Your task to perform on an android device: open chrome and create a bookmark for the current page Image 0: 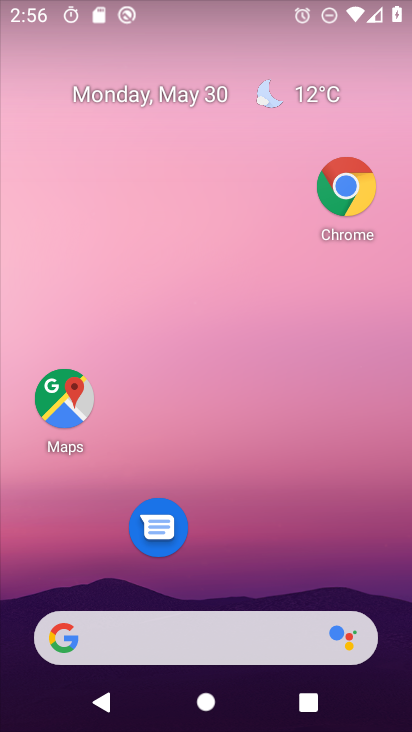
Step 0: drag from (209, 573) to (212, 88)
Your task to perform on an android device: open chrome and create a bookmark for the current page Image 1: 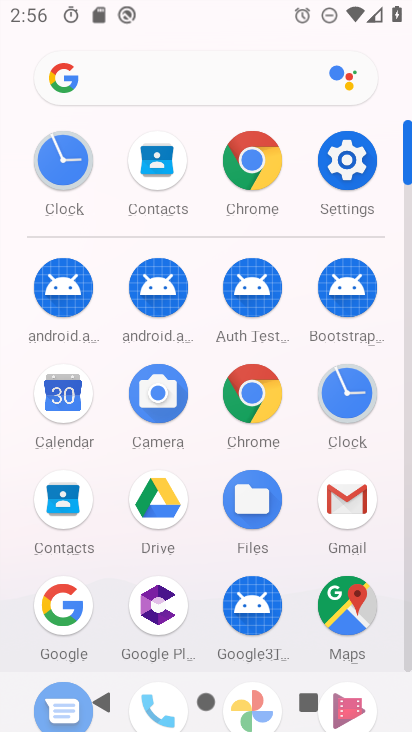
Step 1: click (254, 397)
Your task to perform on an android device: open chrome and create a bookmark for the current page Image 2: 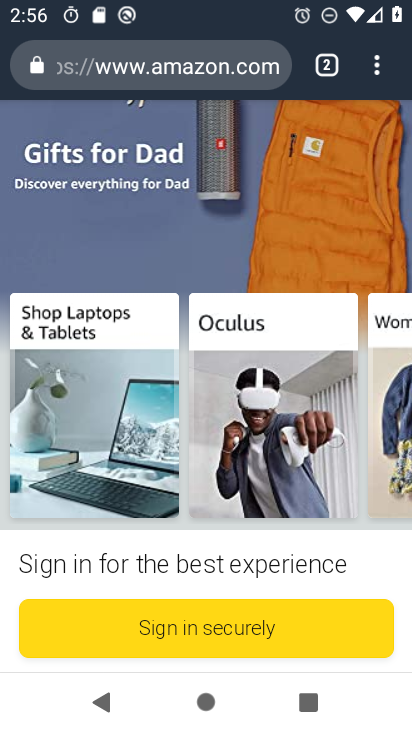
Step 2: drag from (376, 51) to (177, 57)
Your task to perform on an android device: open chrome and create a bookmark for the current page Image 3: 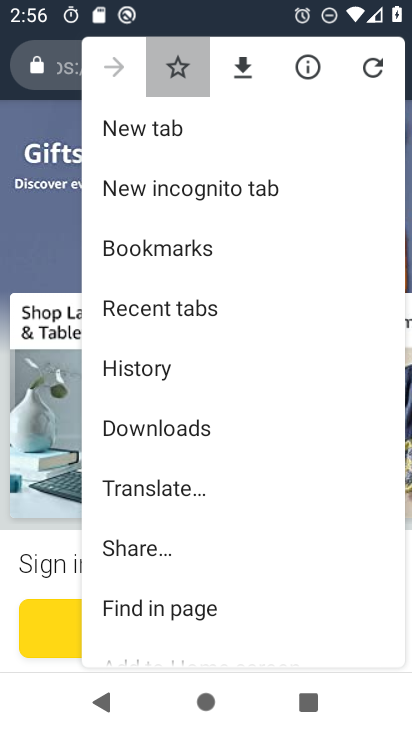
Step 3: click (177, 57)
Your task to perform on an android device: open chrome and create a bookmark for the current page Image 4: 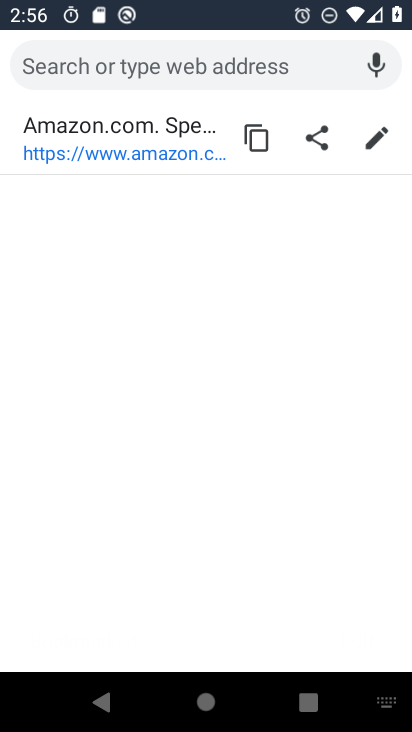
Step 4: task complete